Your task to perform on an android device: open app "AliExpress" Image 0: 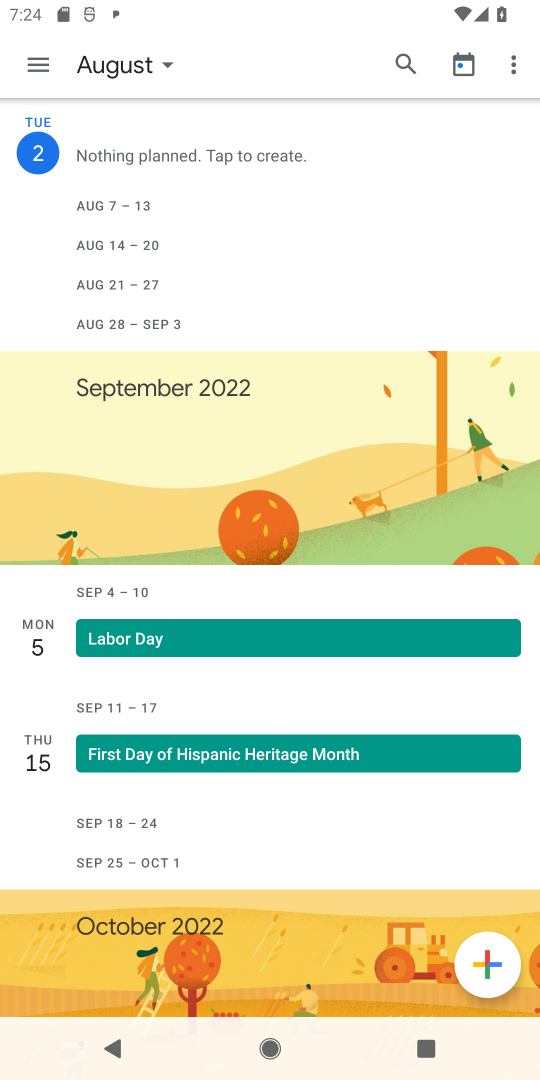
Step 0: press home button
Your task to perform on an android device: open app "AliExpress" Image 1: 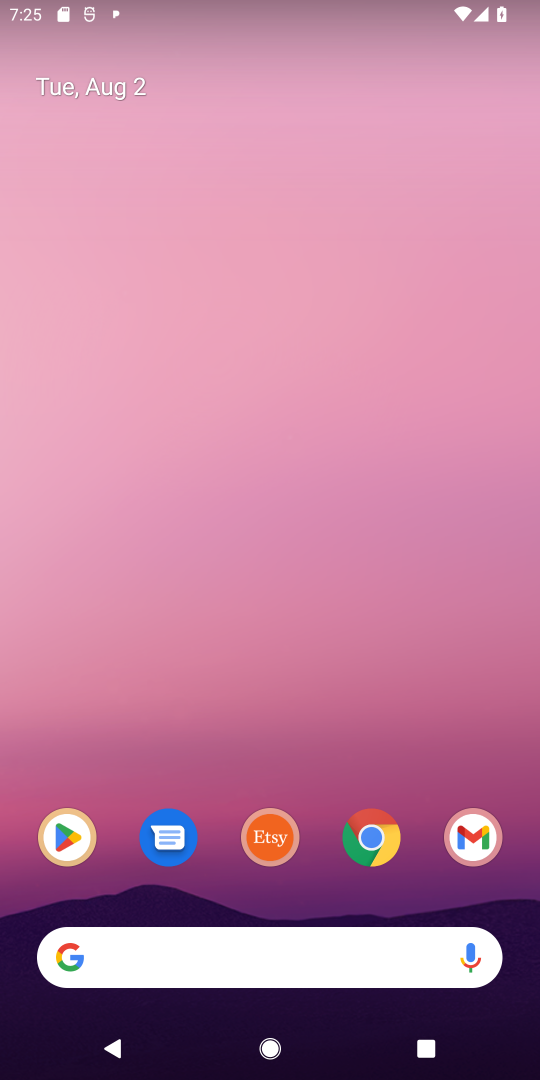
Step 1: click (71, 846)
Your task to perform on an android device: open app "AliExpress" Image 2: 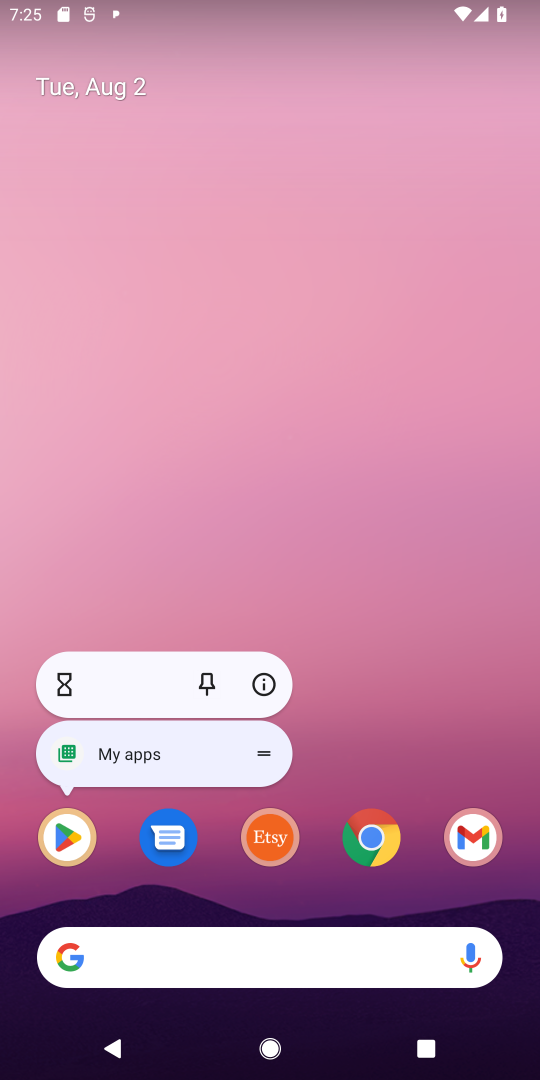
Step 2: click (71, 846)
Your task to perform on an android device: open app "AliExpress" Image 3: 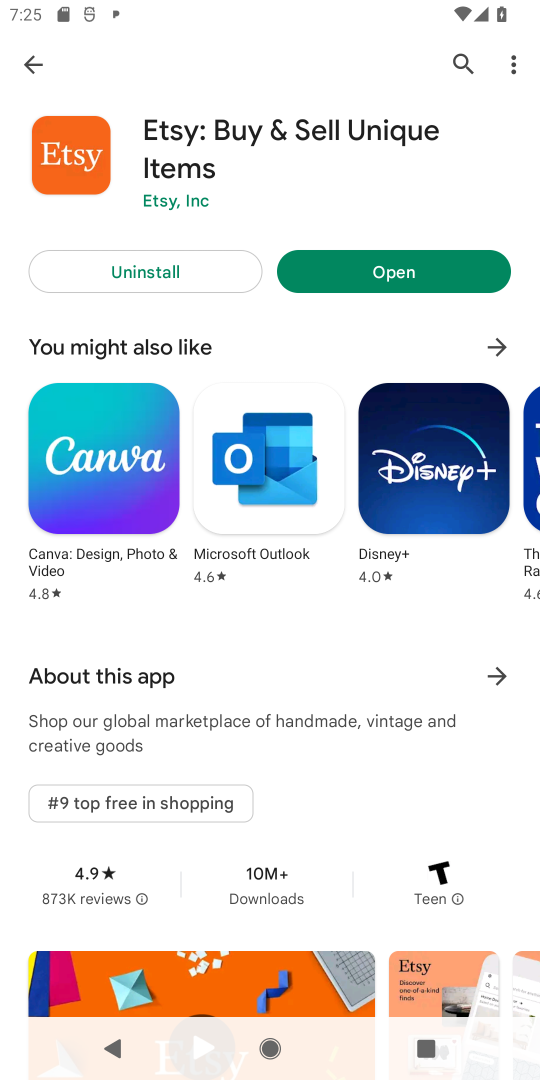
Step 3: click (461, 64)
Your task to perform on an android device: open app "AliExpress" Image 4: 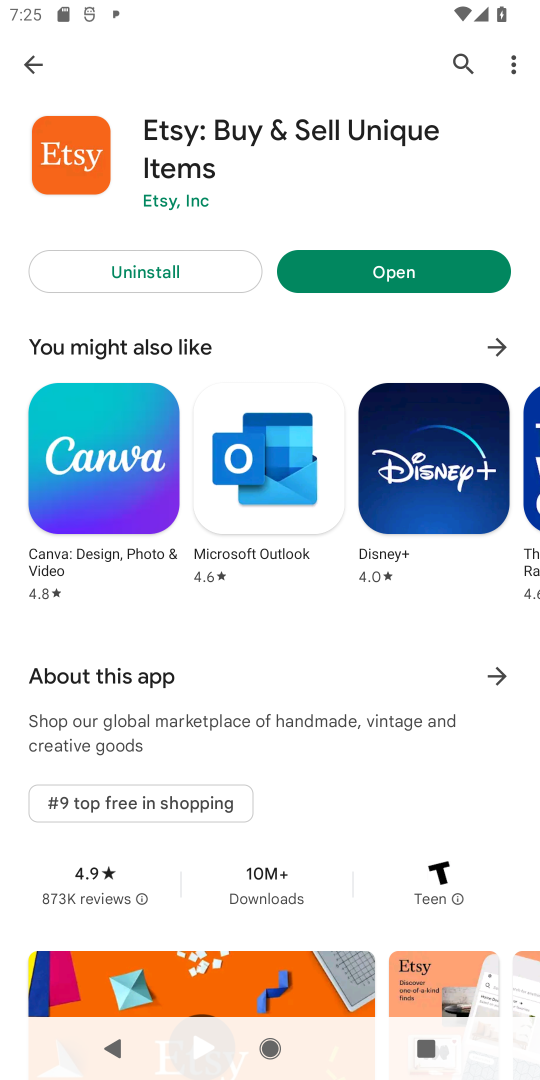
Step 4: click (455, 59)
Your task to perform on an android device: open app "AliExpress" Image 5: 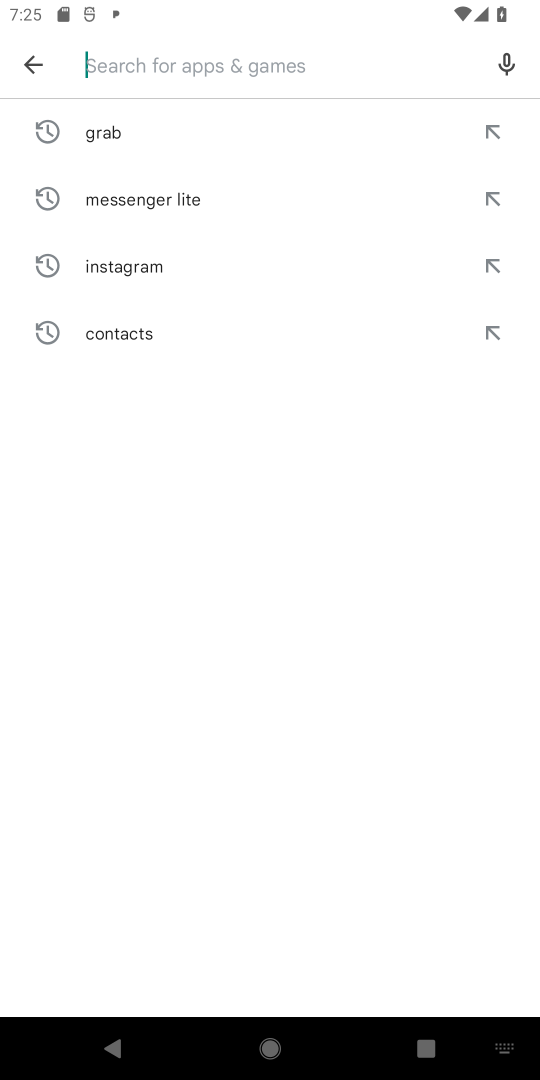
Step 5: type "AliExpress"
Your task to perform on an android device: open app "AliExpress" Image 6: 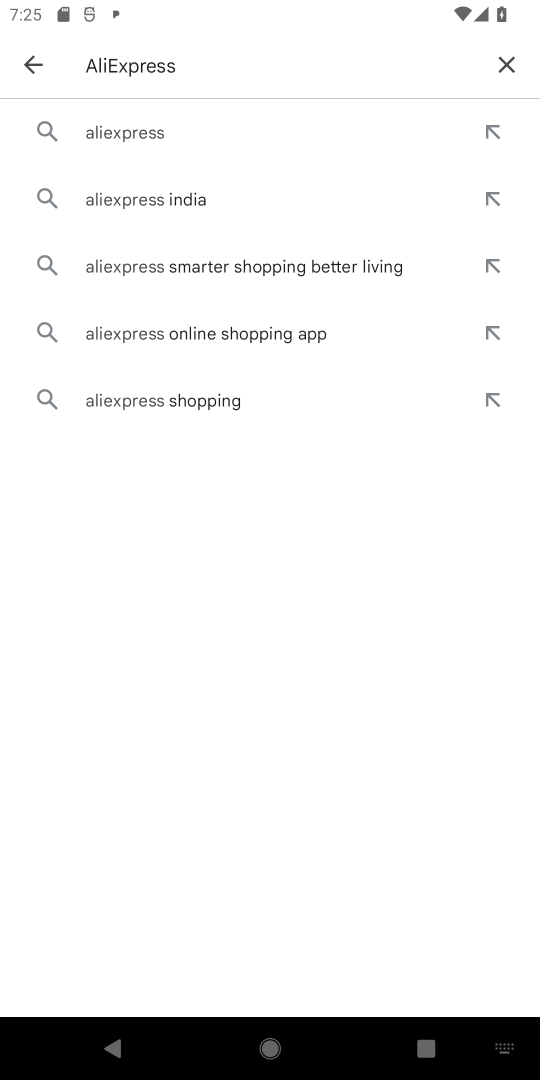
Step 6: click (133, 140)
Your task to perform on an android device: open app "AliExpress" Image 7: 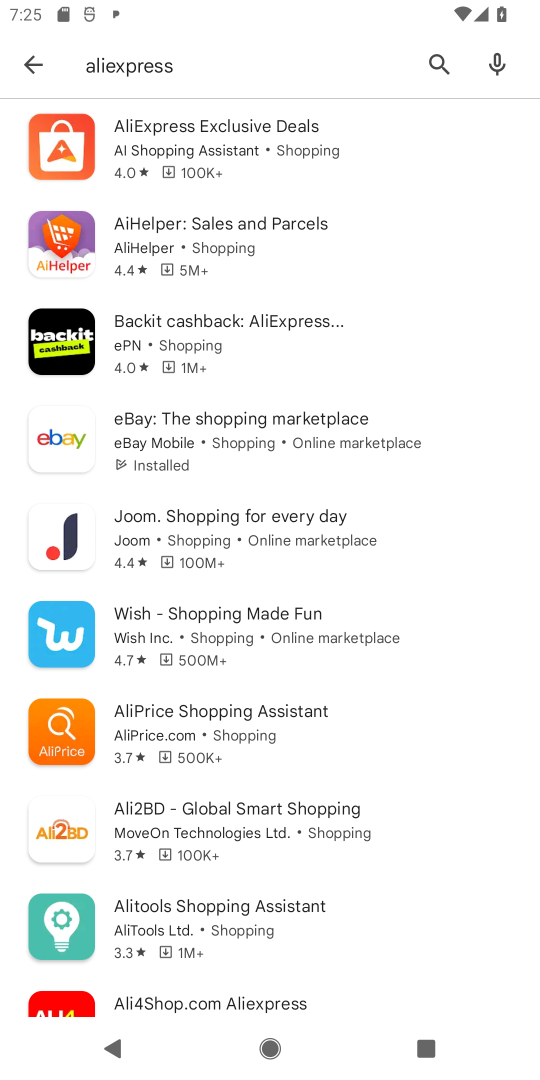
Step 7: click (134, 137)
Your task to perform on an android device: open app "AliExpress" Image 8: 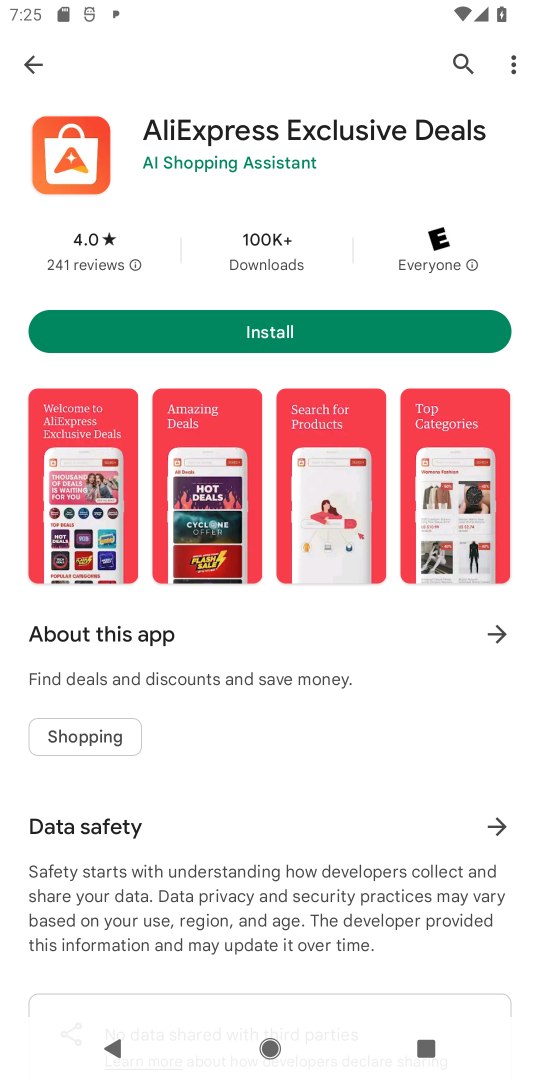
Step 8: task complete